Your task to perform on an android device: Open my contact list Image 0: 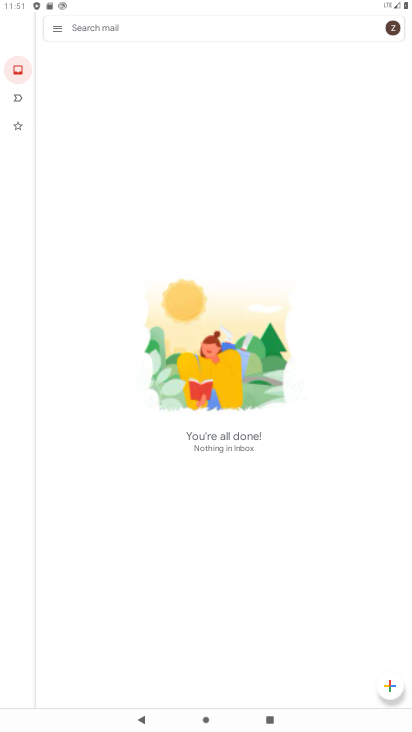
Step 0: press home button
Your task to perform on an android device: Open my contact list Image 1: 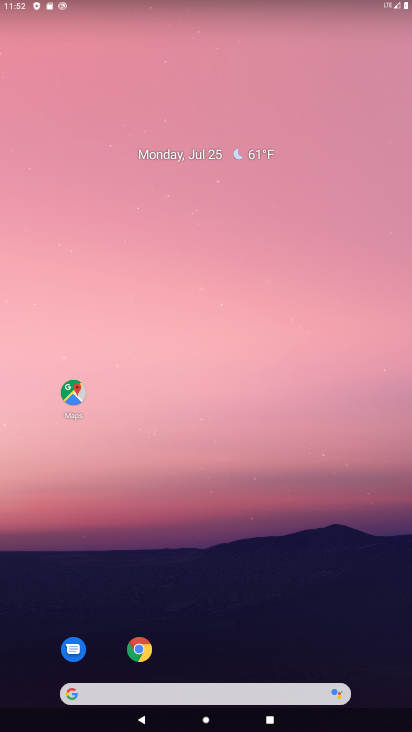
Step 1: drag from (209, 679) to (156, 85)
Your task to perform on an android device: Open my contact list Image 2: 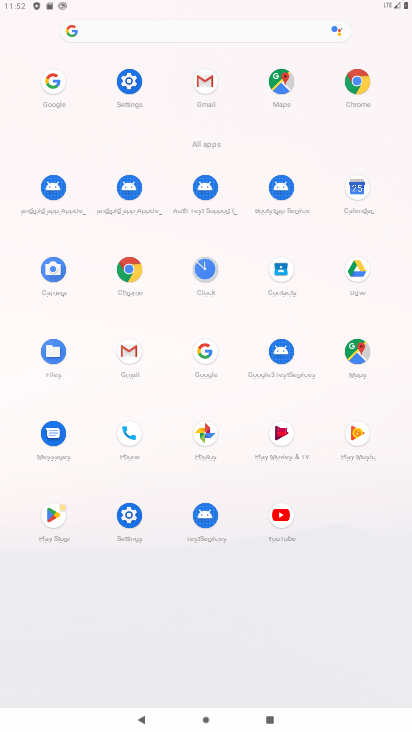
Step 2: click (136, 432)
Your task to perform on an android device: Open my contact list Image 3: 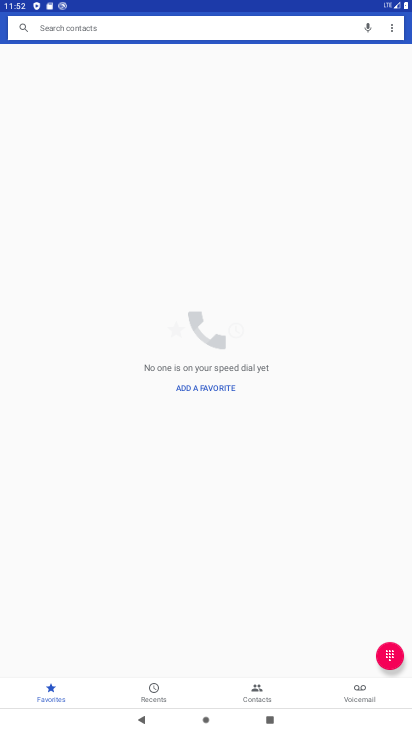
Step 3: click (259, 703)
Your task to perform on an android device: Open my contact list Image 4: 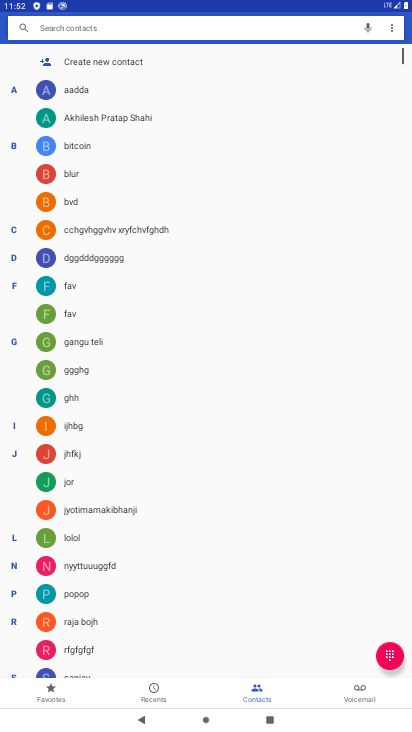
Step 4: task complete